Your task to perform on an android device: Go to battery settings Image 0: 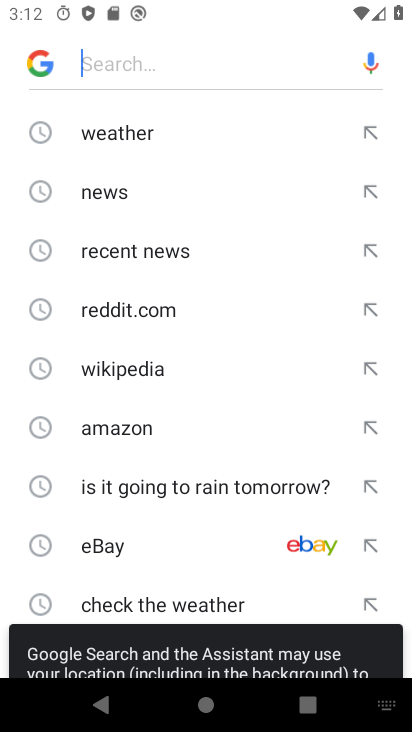
Step 0: press home button
Your task to perform on an android device: Go to battery settings Image 1: 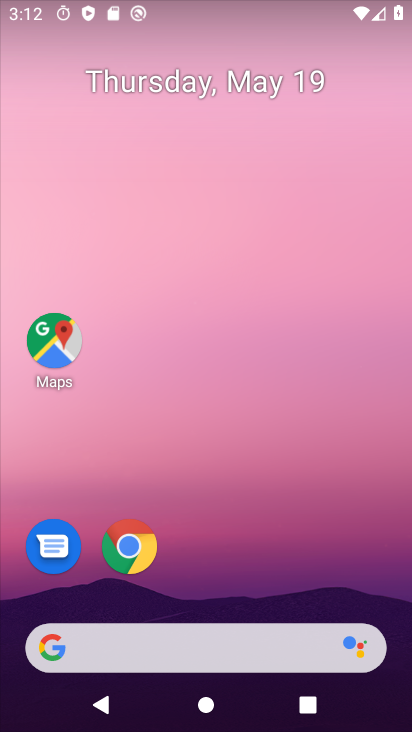
Step 1: drag from (210, 602) to (216, 54)
Your task to perform on an android device: Go to battery settings Image 2: 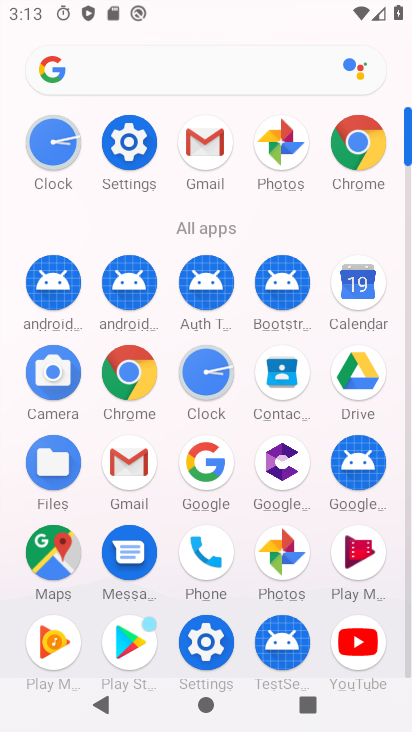
Step 2: click (127, 142)
Your task to perform on an android device: Go to battery settings Image 3: 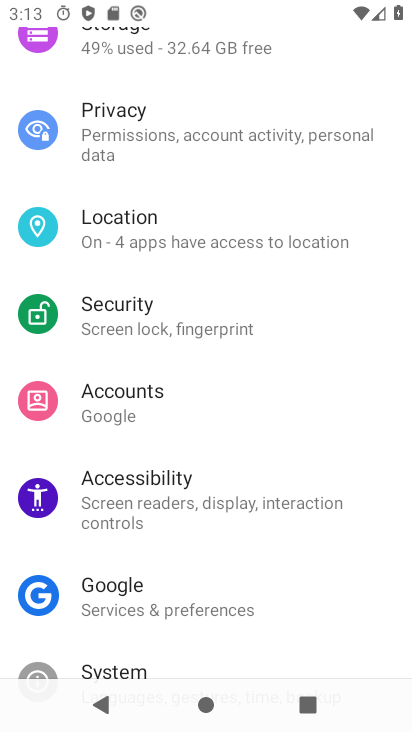
Step 3: drag from (160, 110) to (162, 625)
Your task to perform on an android device: Go to battery settings Image 4: 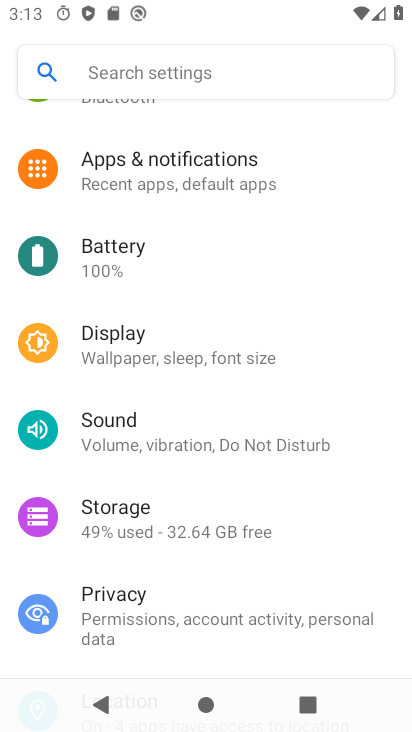
Step 4: click (162, 238)
Your task to perform on an android device: Go to battery settings Image 5: 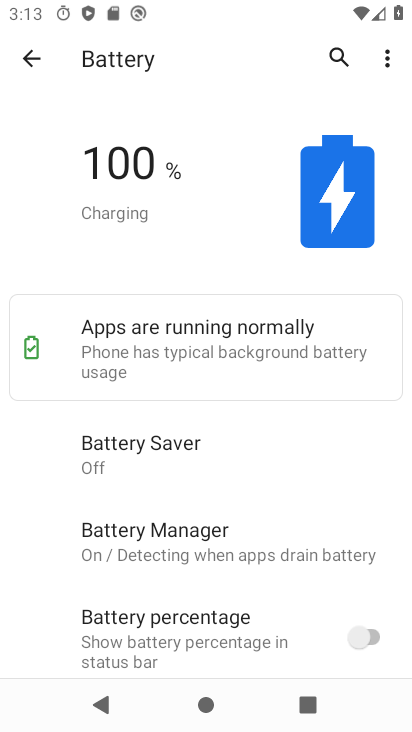
Step 5: task complete